Your task to perform on an android device: turn off translation in the chrome app Image 0: 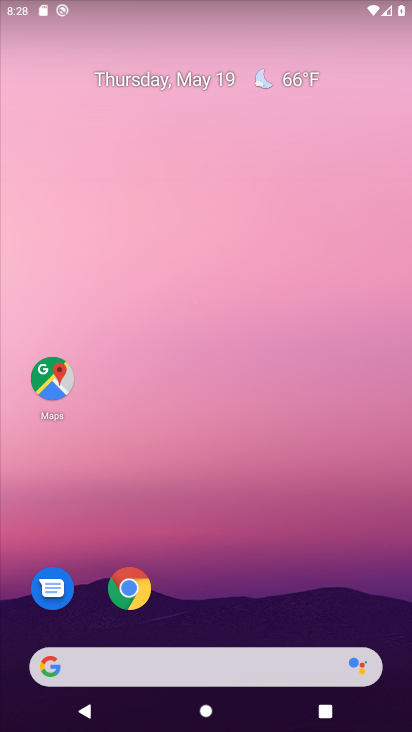
Step 0: drag from (243, 414) to (318, 85)
Your task to perform on an android device: turn off translation in the chrome app Image 1: 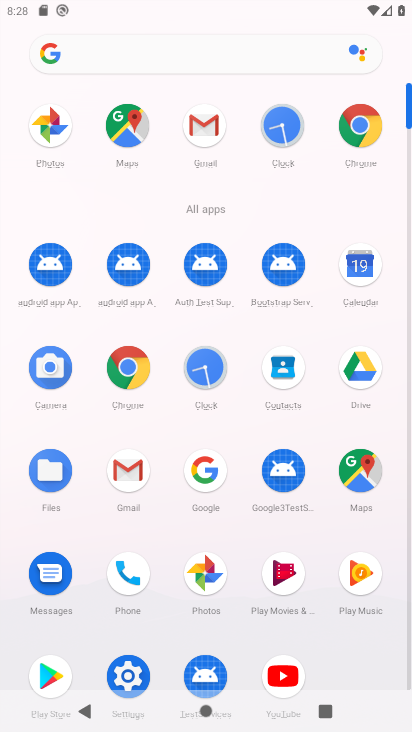
Step 1: click (371, 137)
Your task to perform on an android device: turn off translation in the chrome app Image 2: 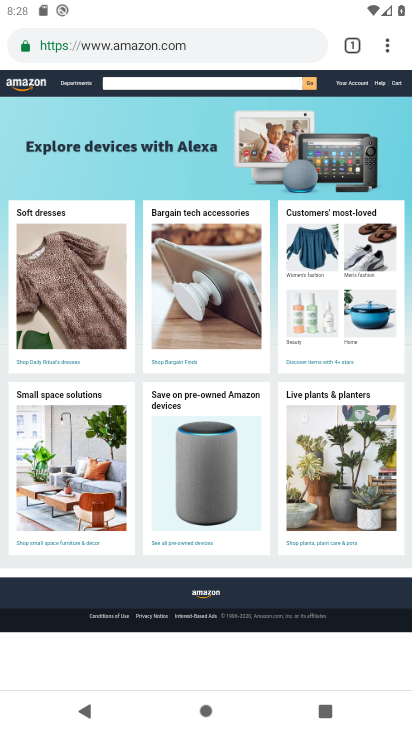
Step 2: click (389, 50)
Your task to perform on an android device: turn off translation in the chrome app Image 3: 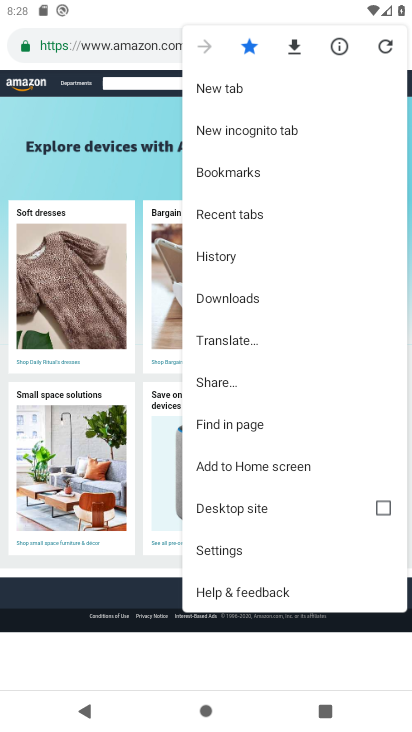
Step 3: click (254, 554)
Your task to perform on an android device: turn off translation in the chrome app Image 4: 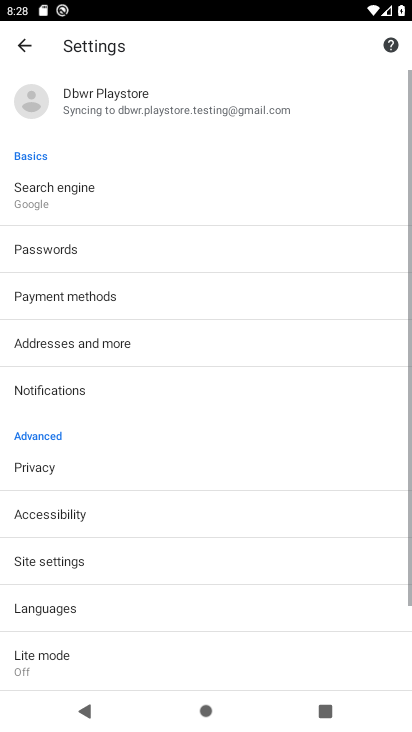
Step 4: drag from (252, 568) to (265, 444)
Your task to perform on an android device: turn off translation in the chrome app Image 5: 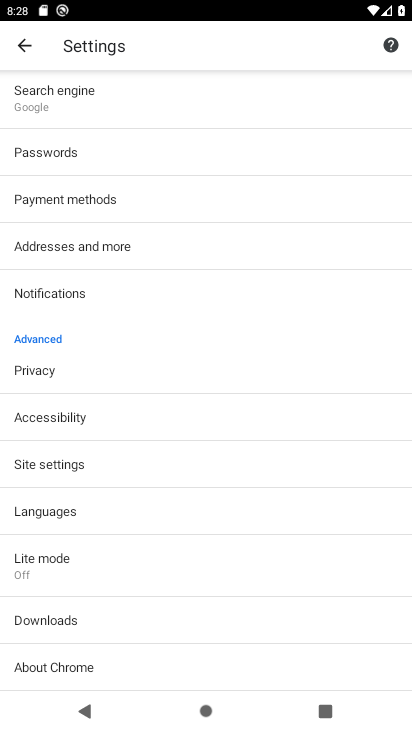
Step 5: drag from (279, 590) to (298, 413)
Your task to perform on an android device: turn off translation in the chrome app Image 6: 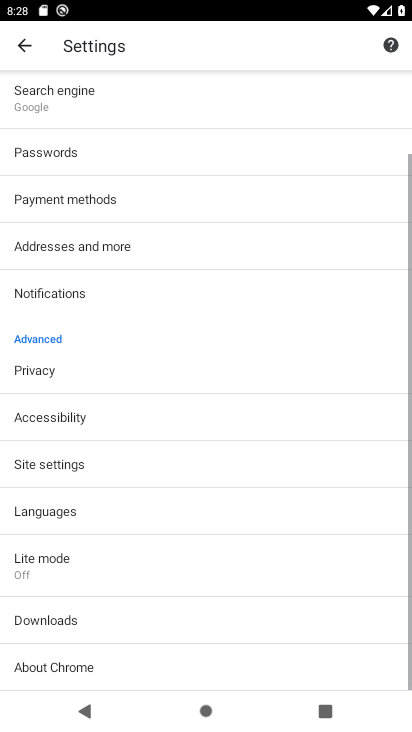
Step 6: drag from (277, 305) to (265, 417)
Your task to perform on an android device: turn off translation in the chrome app Image 7: 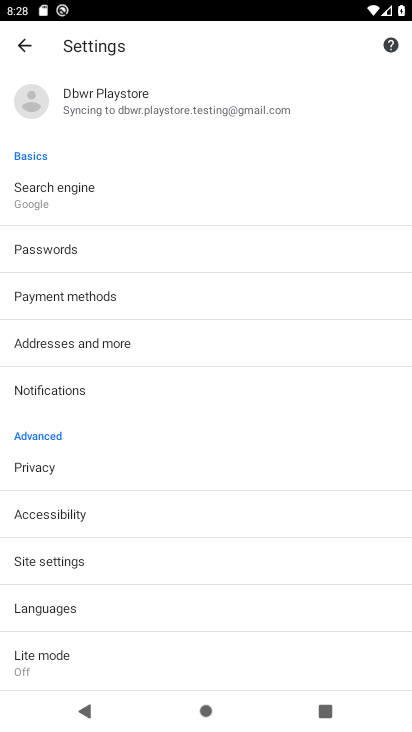
Step 7: drag from (286, 300) to (271, 451)
Your task to perform on an android device: turn off translation in the chrome app Image 8: 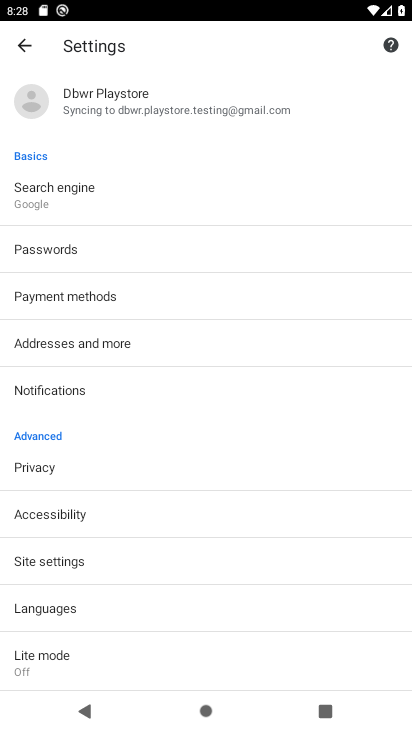
Step 8: drag from (266, 523) to (277, 426)
Your task to perform on an android device: turn off translation in the chrome app Image 9: 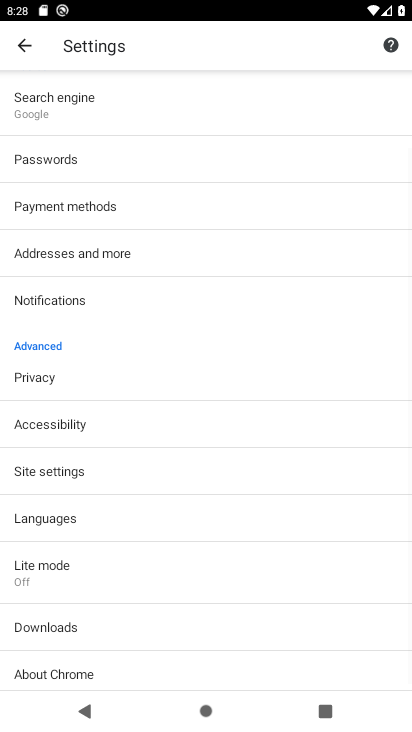
Step 9: drag from (264, 563) to (275, 465)
Your task to perform on an android device: turn off translation in the chrome app Image 10: 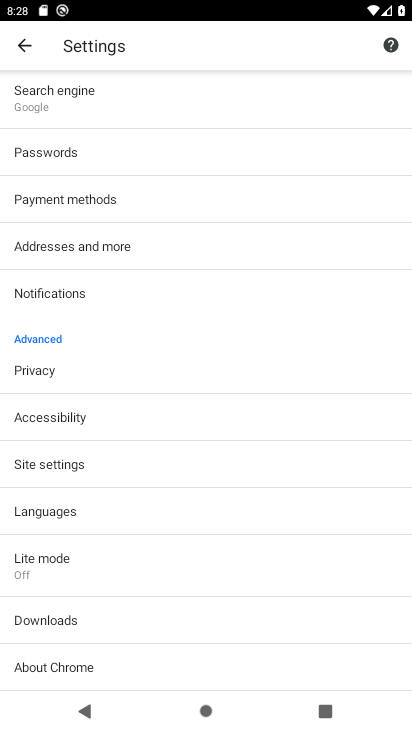
Step 10: click (193, 501)
Your task to perform on an android device: turn off translation in the chrome app Image 11: 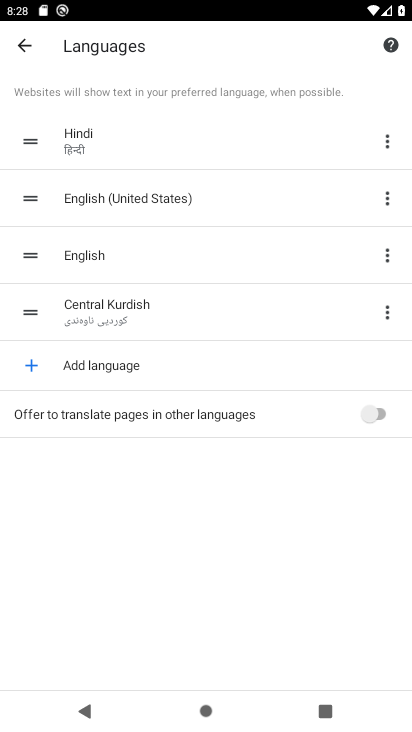
Step 11: task complete